Your task to perform on an android device: turn on airplane mode Image 0: 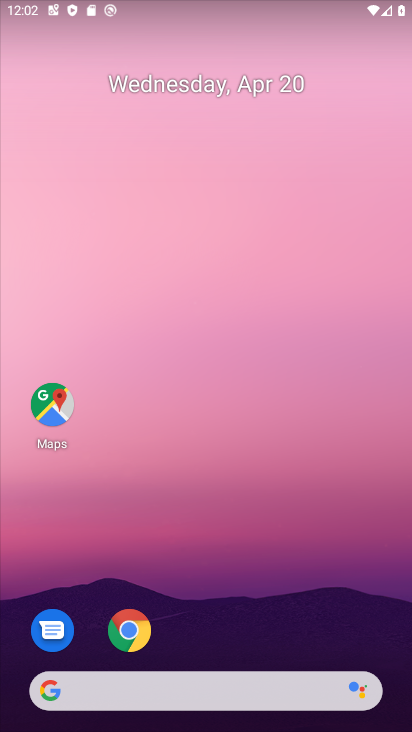
Step 0: drag from (197, 597) to (335, 115)
Your task to perform on an android device: turn on airplane mode Image 1: 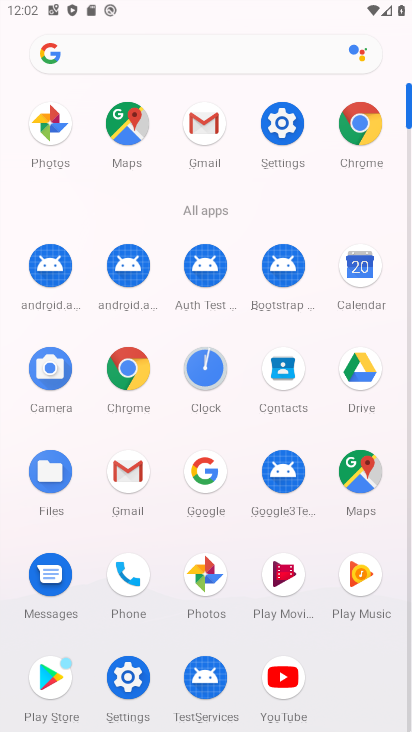
Step 1: click (282, 132)
Your task to perform on an android device: turn on airplane mode Image 2: 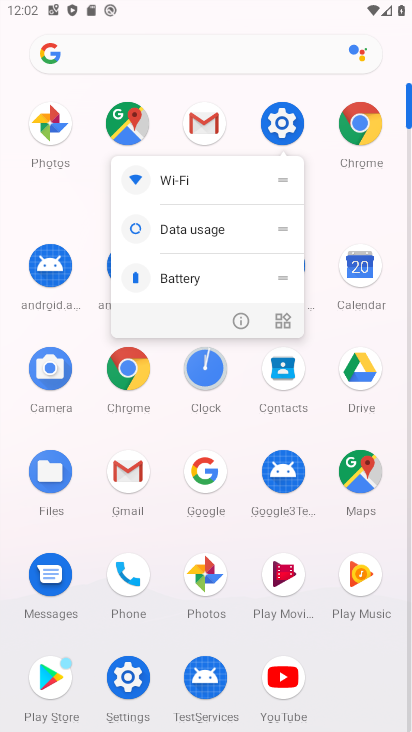
Step 2: click (283, 125)
Your task to perform on an android device: turn on airplane mode Image 3: 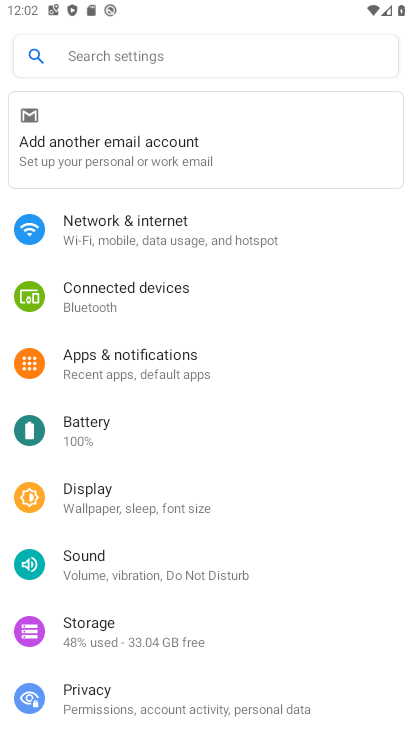
Step 3: click (187, 240)
Your task to perform on an android device: turn on airplane mode Image 4: 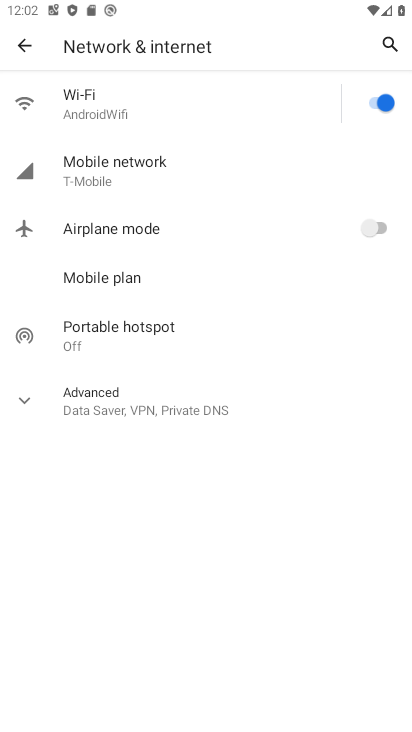
Step 4: click (383, 231)
Your task to perform on an android device: turn on airplane mode Image 5: 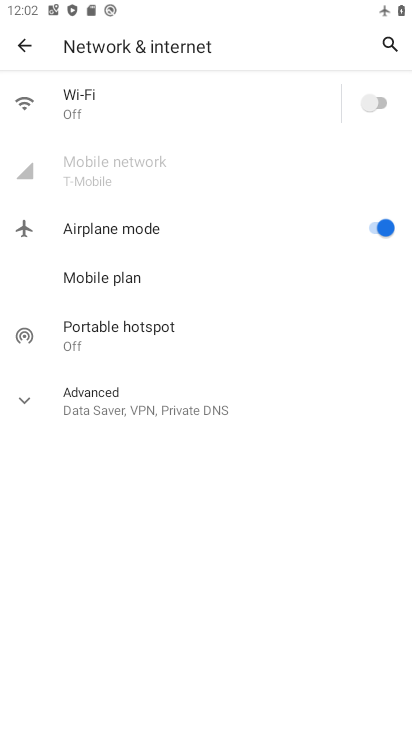
Step 5: task complete